Your task to perform on an android device: toggle notification dots Image 0: 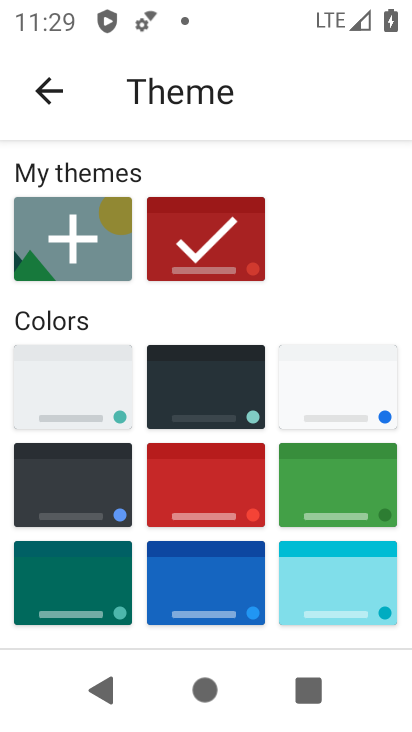
Step 0: press home button
Your task to perform on an android device: toggle notification dots Image 1: 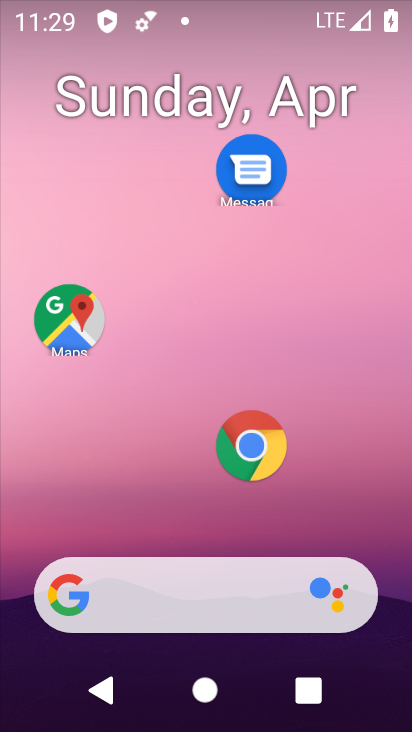
Step 1: drag from (162, 596) to (313, 196)
Your task to perform on an android device: toggle notification dots Image 2: 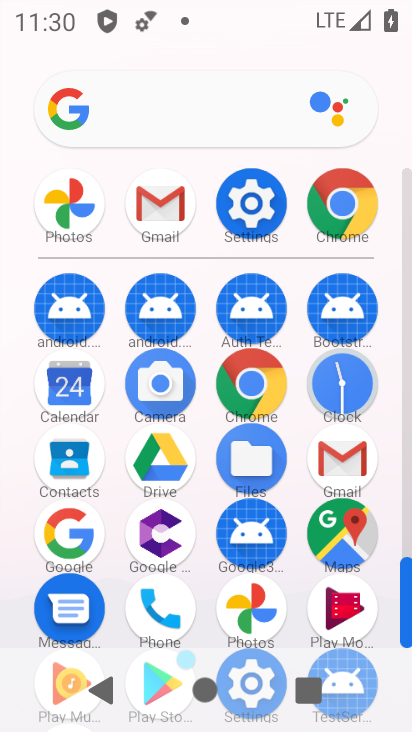
Step 2: click (251, 202)
Your task to perform on an android device: toggle notification dots Image 3: 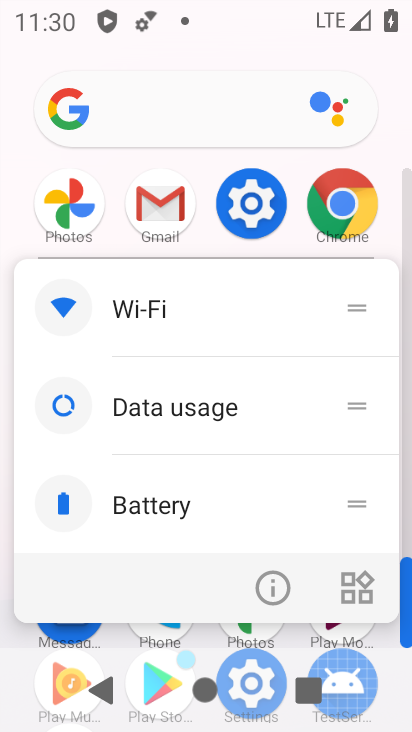
Step 3: click (253, 217)
Your task to perform on an android device: toggle notification dots Image 4: 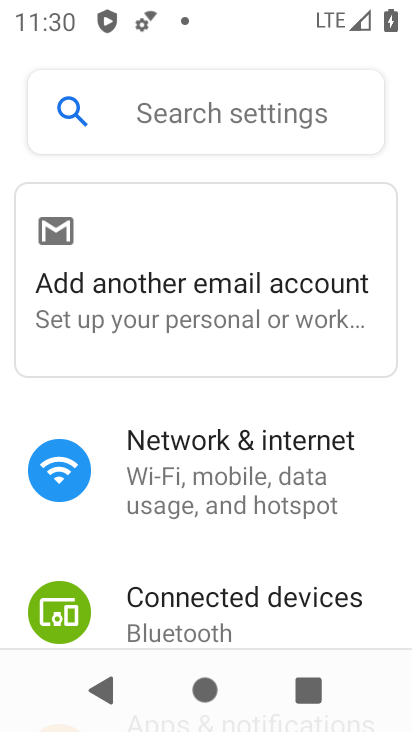
Step 4: drag from (141, 631) to (350, 93)
Your task to perform on an android device: toggle notification dots Image 5: 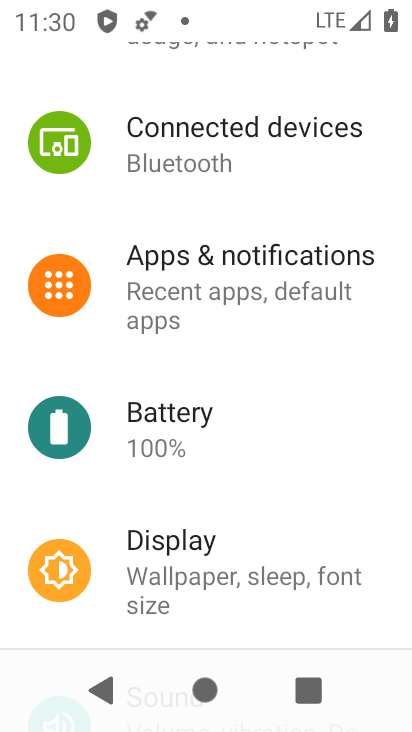
Step 5: click (280, 255)
Your task to perform on an android device: toggle notification dots Image 6: 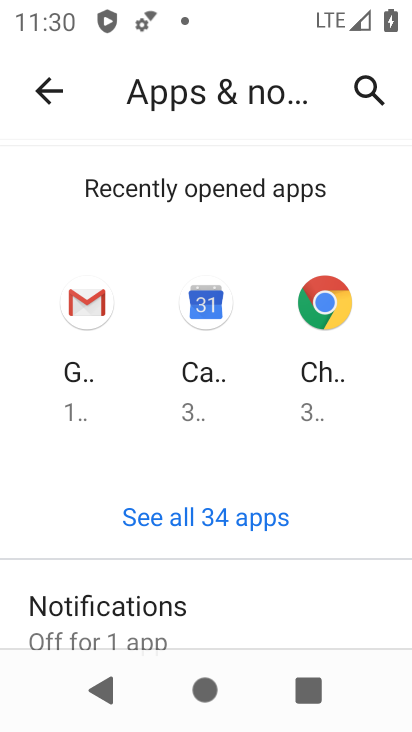
Step 6: drag from (161, 549) to (304, 216)
Your task to perform on an android device: toggle notification dots Image 7: 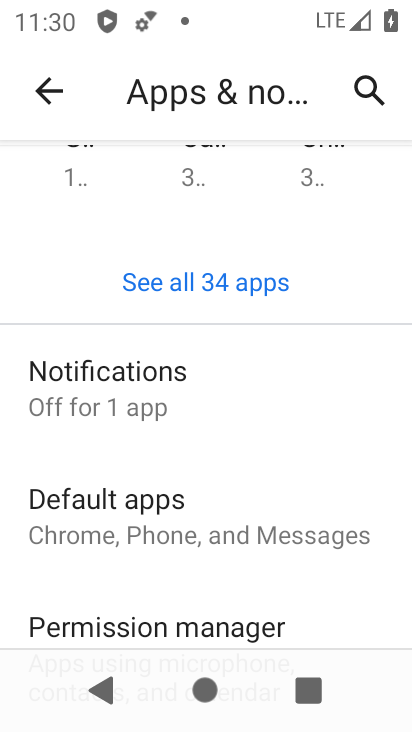
Step 7: click (128, 381)
Your task to perform on an android device: toggle notification dots Image 8: 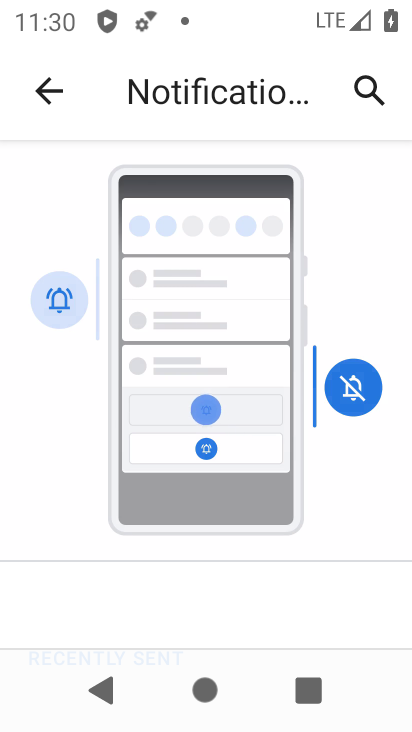
Step 8: drag from (123, 620) to (369, 150)
Your task to perform on an android device: toggle notification dots Image 9: 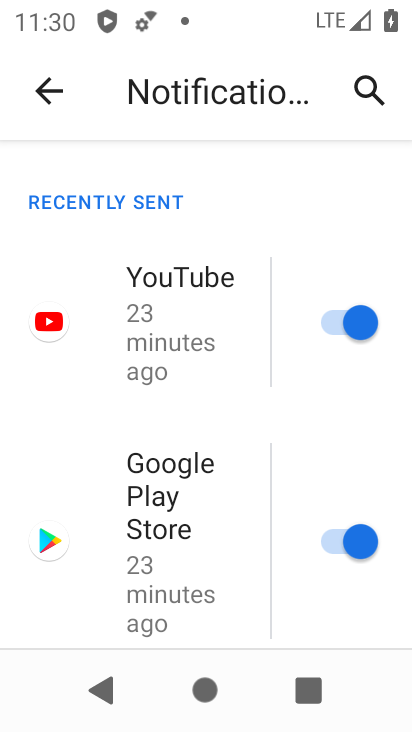
Step 9: drag from (215, 607) to (357, 160)
Your task to perform on an android device: toggle notification dots Image 10: 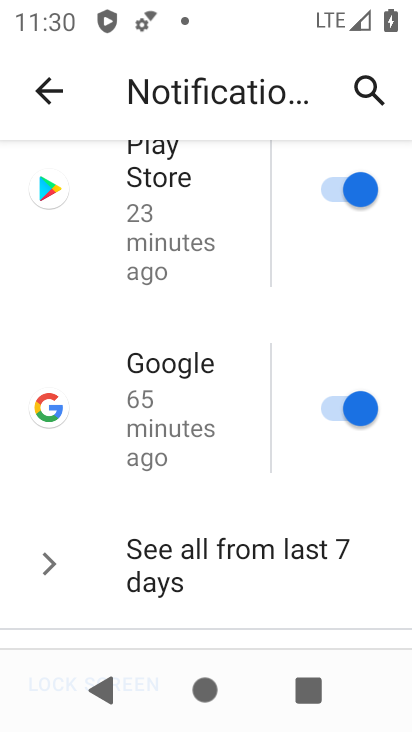
Step 10: drag from (210, 558) to (390, 24)
Your task to perform on an android device: toggle notification dots Image 11: 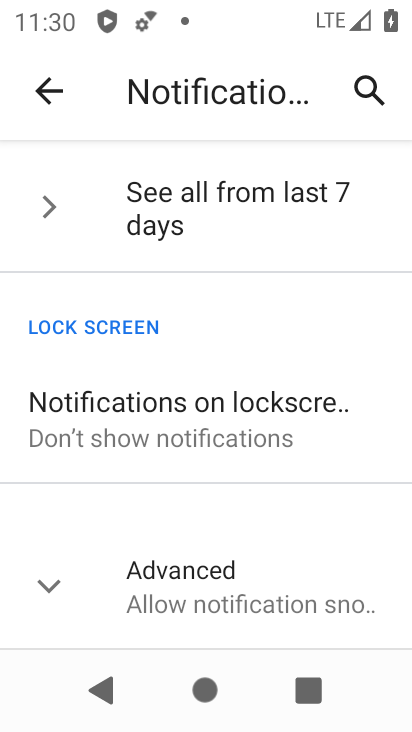
Step 11: click (168, 583)
Your task to perform on an android device: toggle notification dots Image 12: 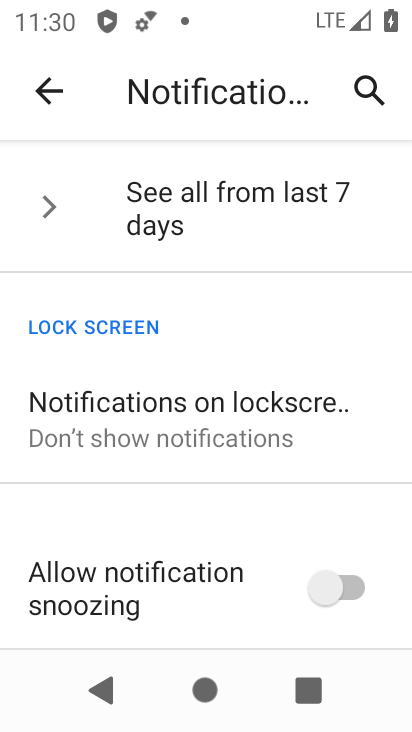
Step 12: drag from (168, 569) to (369, 130)
Your task to perform on an android device: toggle notification dots Image 13: 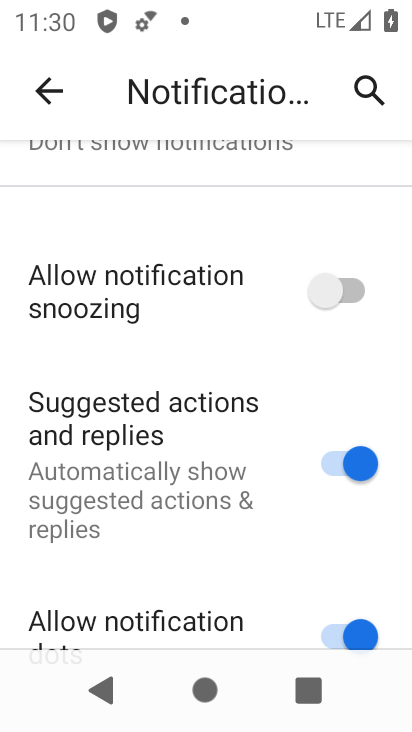
Step 13: drag from (256, 524) to (360, 190)
Your task to perform on an android device: toggle notification dots Image 14: 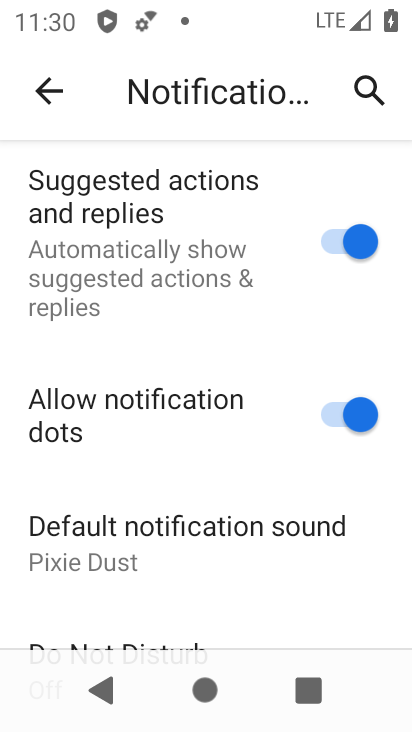
Step 14: click (336, 420)
Your task to perform on an android device: toggle notification dots Image 15: 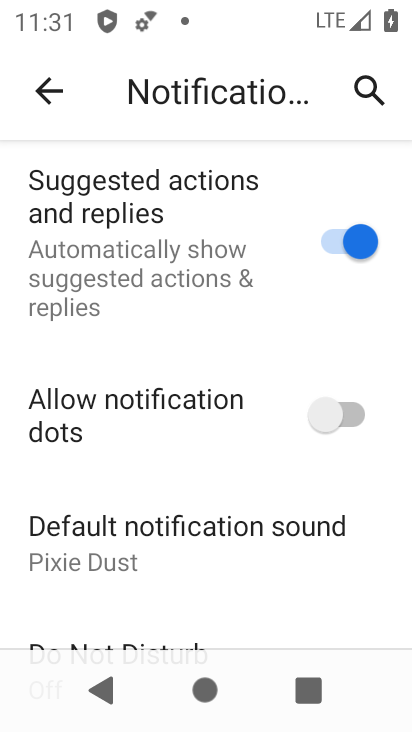
Step 15: task complete